Your task to perform on an android device: Go to network settings Image 0: 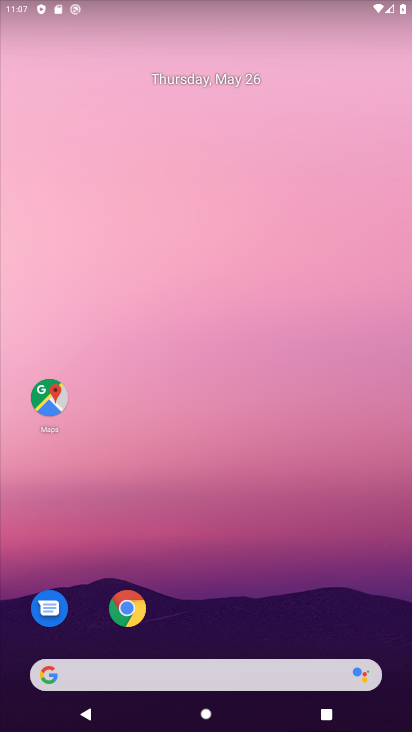
Step 0: drag from (271, 551) to (182, 113)
Your task to perform on an android device: Go to network settings Image 1: 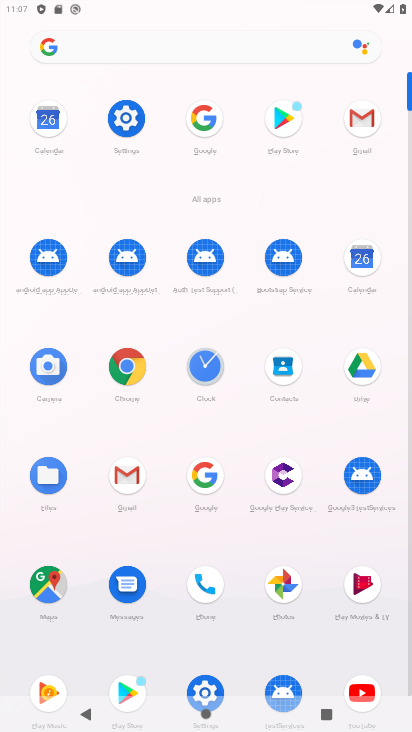
Step 1: click (117, 114)
Your task to perform on an android device: Go to network settings Image 2: 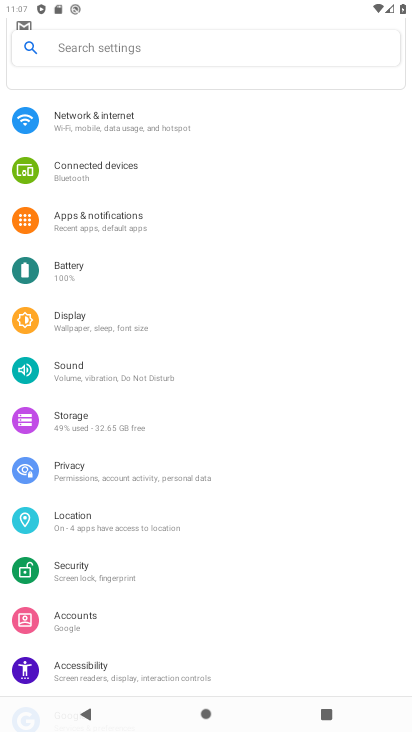
Step 2: click (93, 114)
Your task to perform on an android device: Go to network settings Image 3: 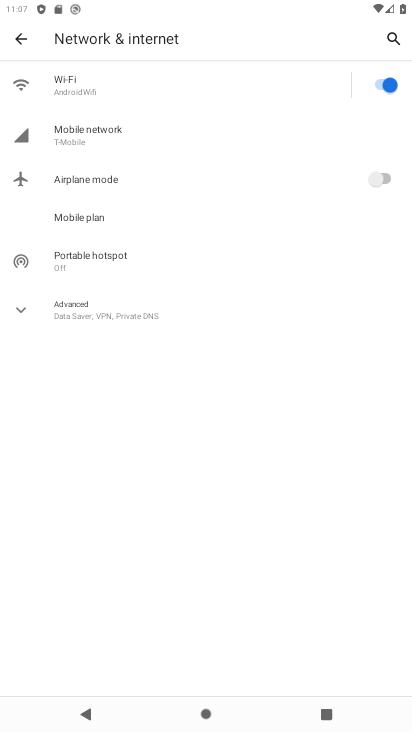
Step 3: task complete